Your task to perform on an android device: Open Youtube and go to "Your channel" Image 0: 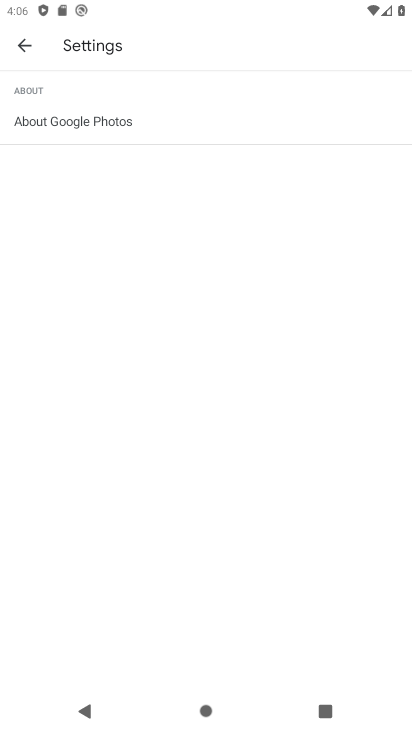
Step 0: press home button
Your task to perform on an android device: Open Youtube and go to "Your channel" Image 1: 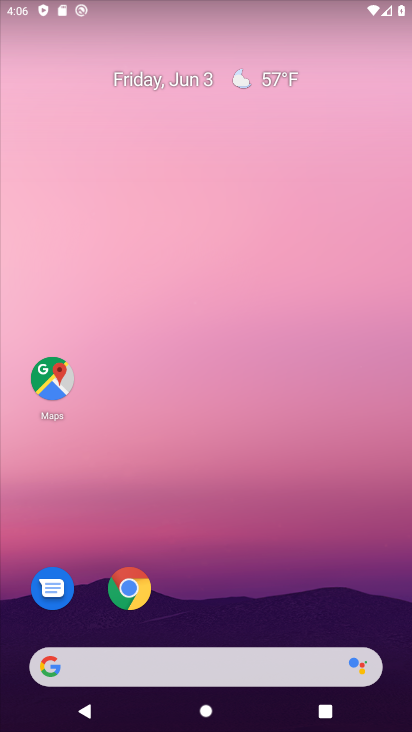
Step 1: drag from (279, 608) to (184, 94)
Your task to perform on an android device: Open Youtube and go to "Your channel" Image 2: 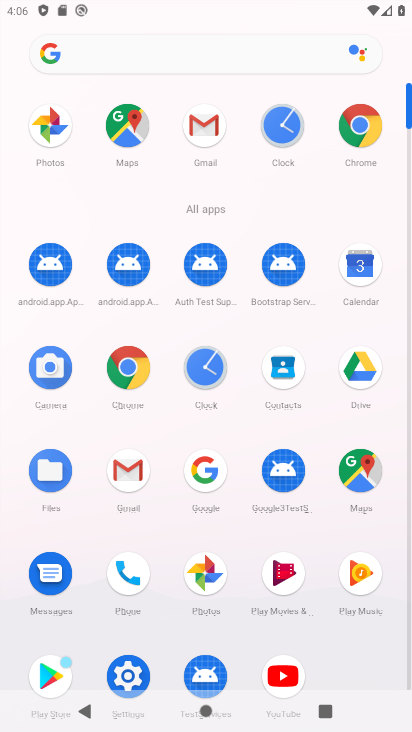
Step 2: click (294, 668)
Your task to perform on an android device: Open Youtube and go to "Your channel" Image 3: 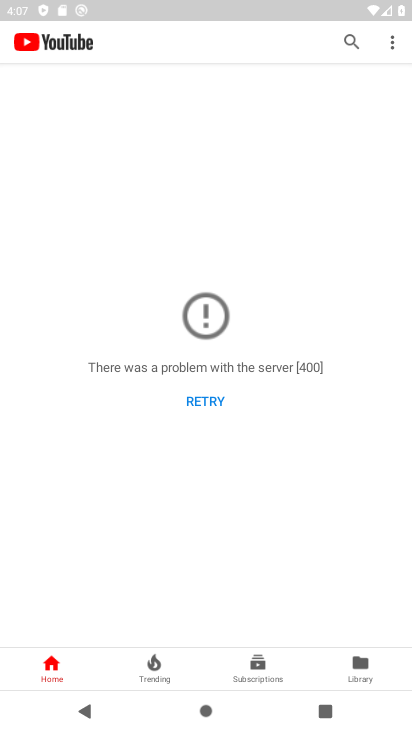
Step 3: click (389, 36)
Your task to perform on an android device: Open Youtube and go to "Your channel" Image 4: 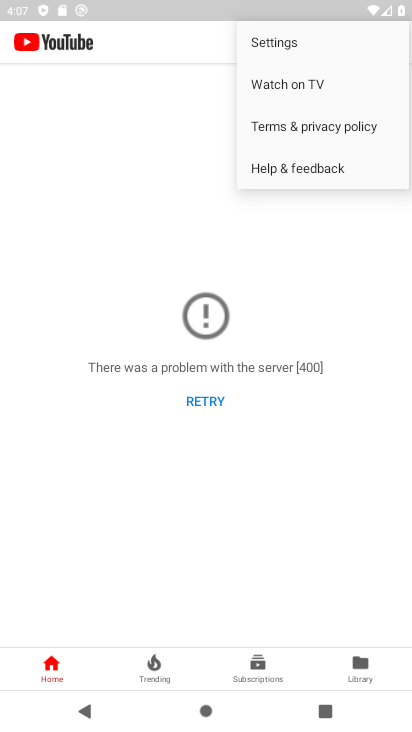
Step 4: task complete